Your task to perform on an android device: Open wifi settings Image 0: 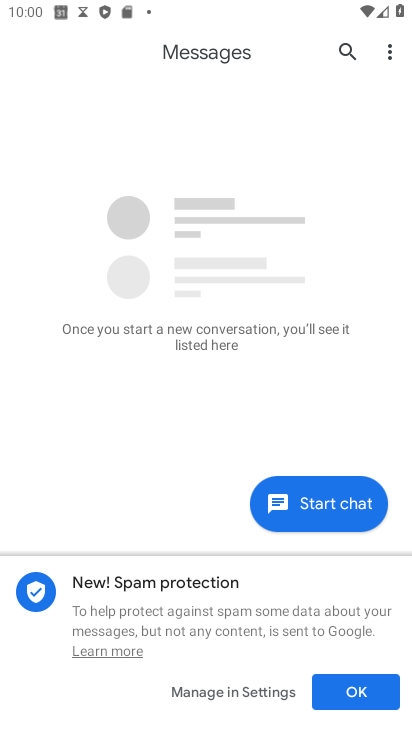
Step 0: drag from (222, 615) to (391, 363)
Your task to perform on an android device: Open wifi settings Image 1: 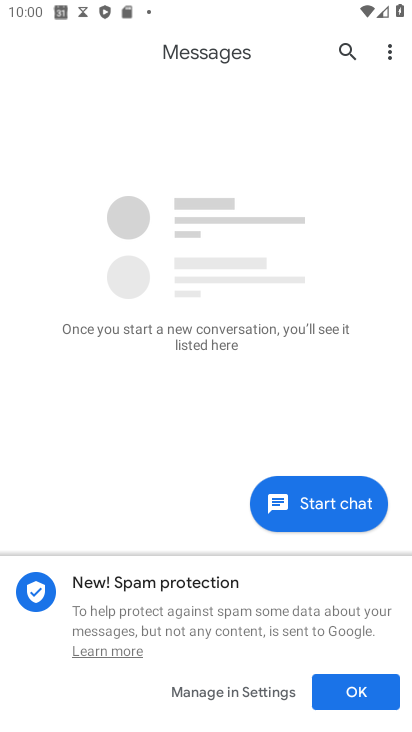
Step 1: press home button
Your task to perform on an android device: Open wifi settings Image 2: 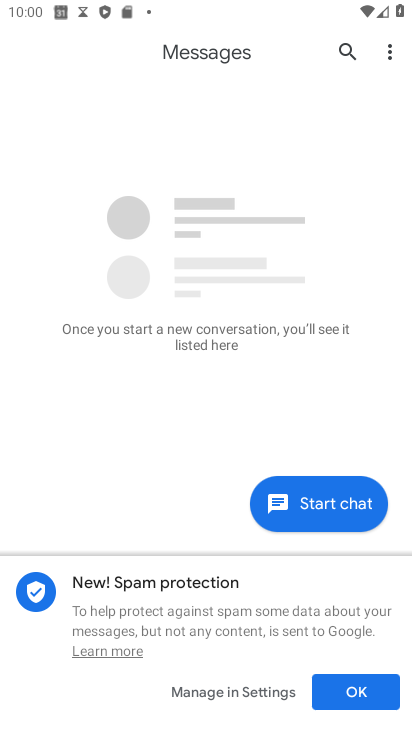
Step 2: click (408, 450)
Your task to perform on an android device: Open wifi settings Image 3: 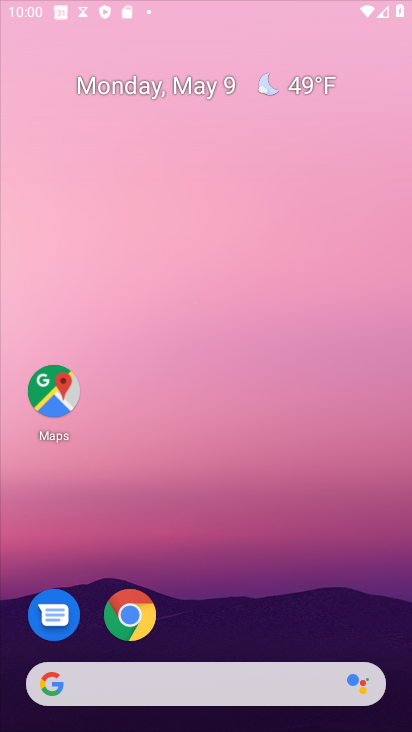
Step 3: drag from (191, 473) to (215, 106)
Your task to perform on an android device: Open wifi settings Image 4: 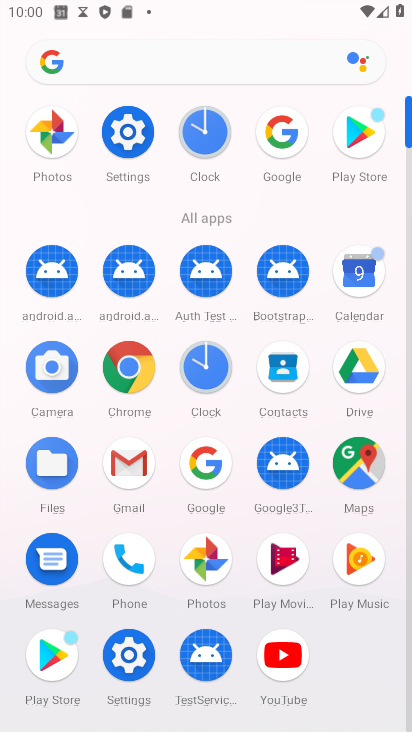
Step 4: click (148, 121)
Your task to perform on an android device: Open wifi settings Image 5: 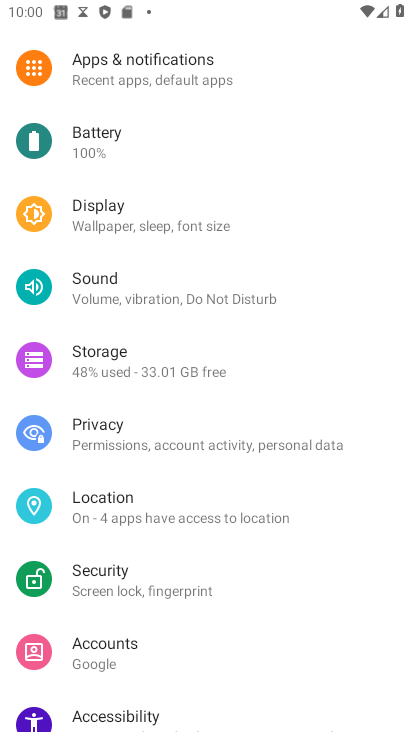
Step 5: drag from (182, 100) to (245, 619)
Your task to perform on an android device: Open wifi settings Image 6: 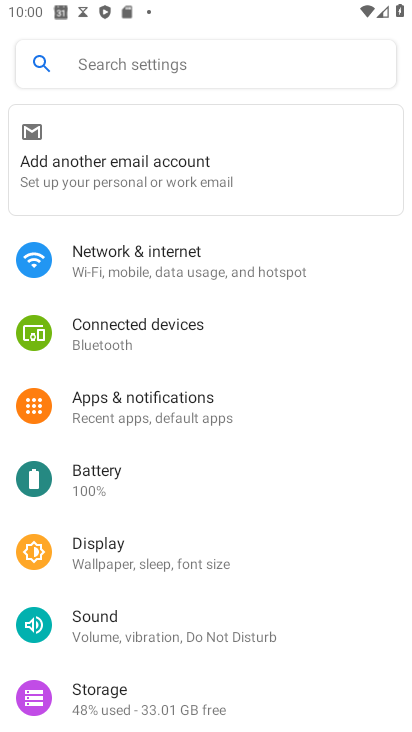
Step 6: click (172, 251)
Your task to perform on an android device: Open wifi settings Image 7: 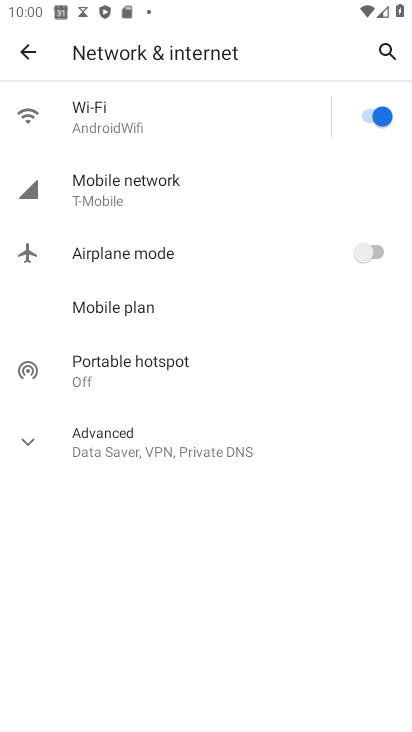
Step 7: click (167, 112)
Your task to perform on an android device: Open wifi settings Image 8: 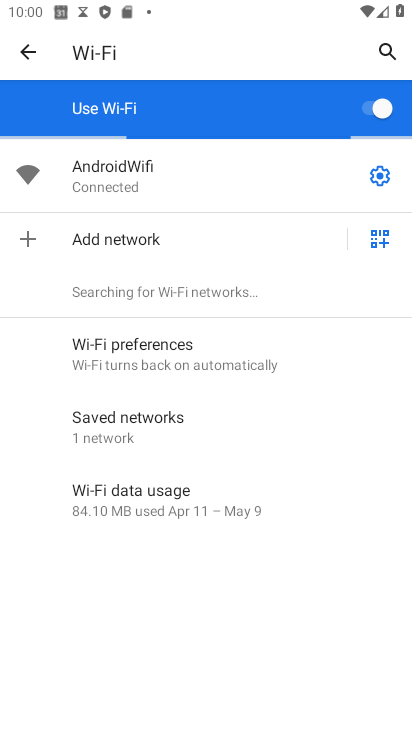
Step 8: task complete